Your task to perform on an android device: Search for vegetarian restaurants on Maps Image 0: 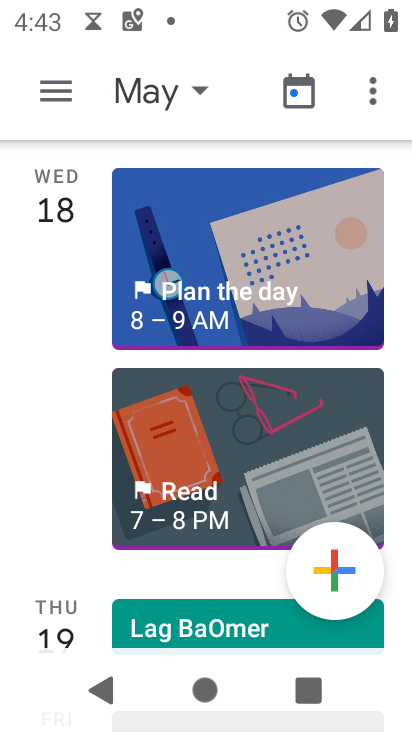
Step 0: press home button
Your task to perform on an android device: Search for vegetarian restaurants on Maps Image 1: 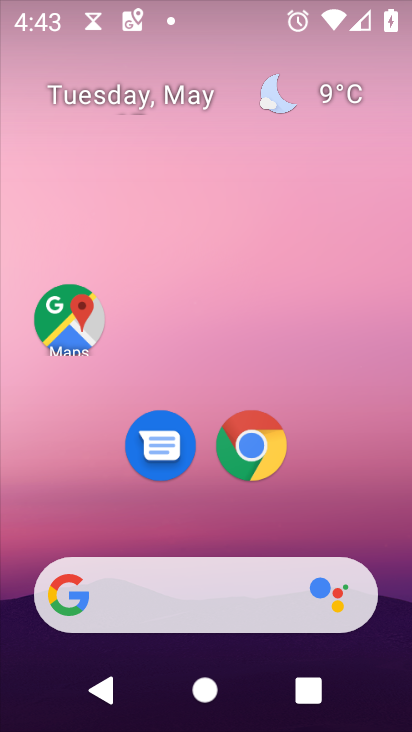
Step 1: drag from (312, 587) to (372, 170)
Your task to perform on an android device: Search for vegetarian restaurants on Maps Image 2: 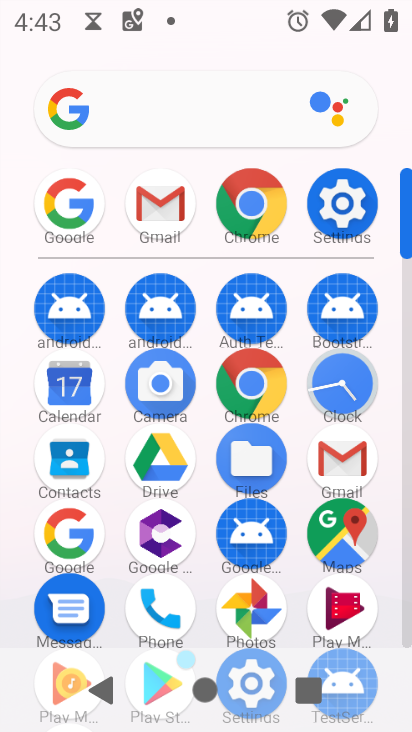
Step 2: click (338, 523)
Your task to perform on an android device: Search for vegetarian restaurants on Maps Image 3: 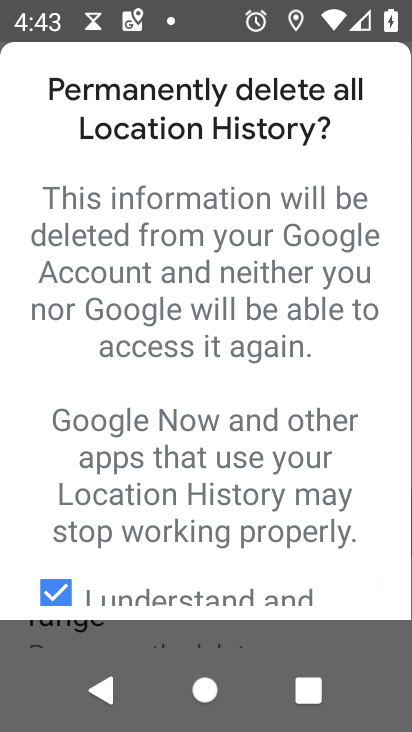
Step 3: press back button
Your task to perform on an android device: Search for vegetarian restaurants on Maps Image 4: 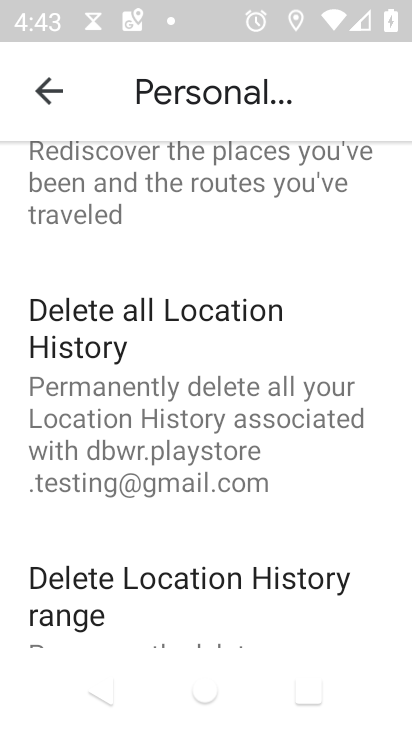
Step 4: press back button
Your task to perform on an android device: Search for vegetarian restaurants on Maps Image 5: 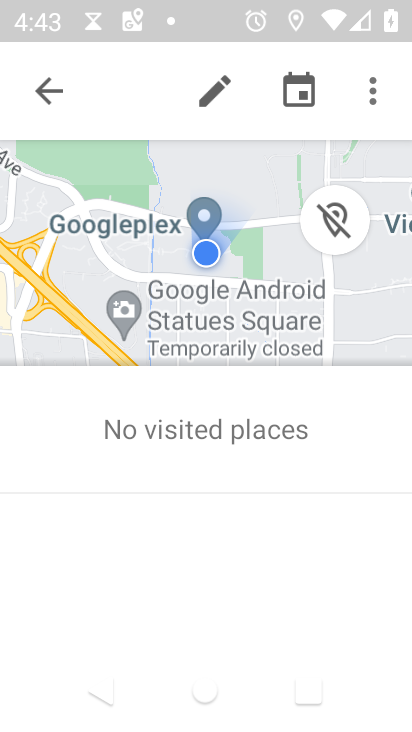
Step 5: press back button
Your task to perform on an android device: Search for vegetarian restaurants on Maps Image 6: 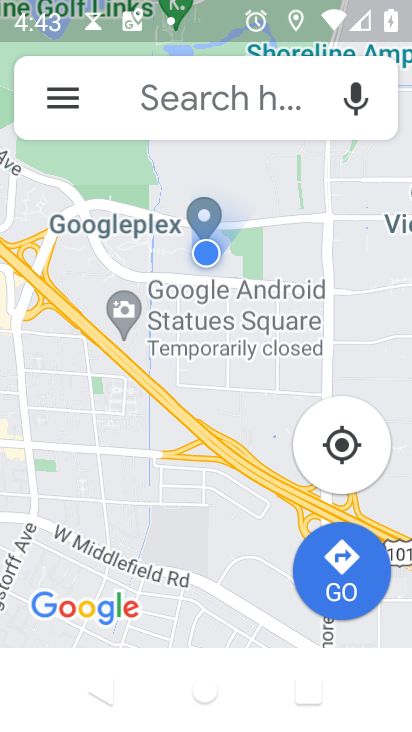
Step 6: click (55, 101)
Your task to perform on an android device: Search for vegetarian restaurants on Maps Image 7: 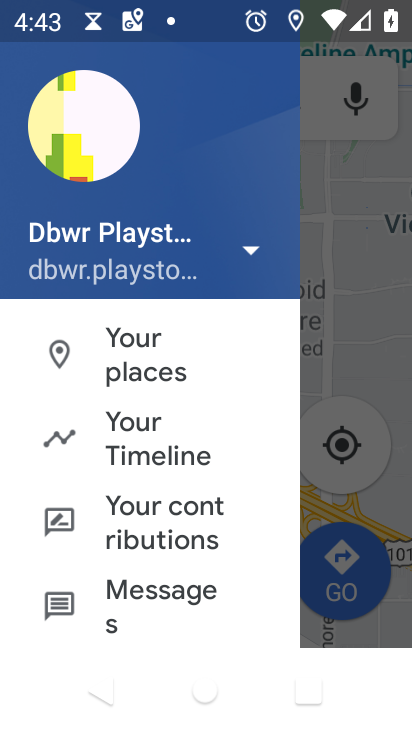
Step 7: click (399, 349)
Your task to perform on an android device: Search for vegetarian restaurants on Maps Image 8: 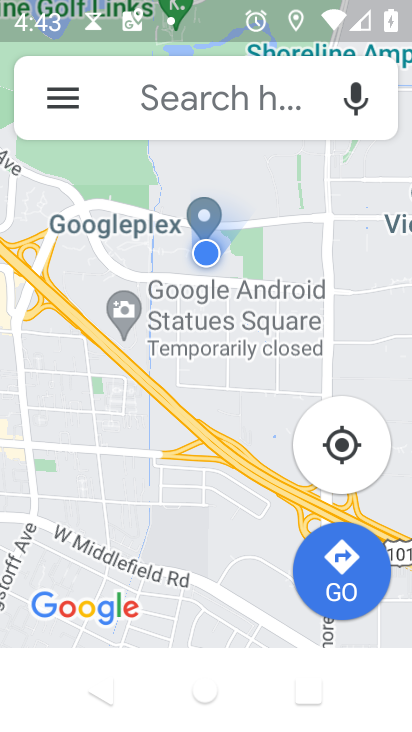
Step 8: click (292, 99)
Your task to perform on an android device: Search for vegetarian restaurants on Maps Image 9: 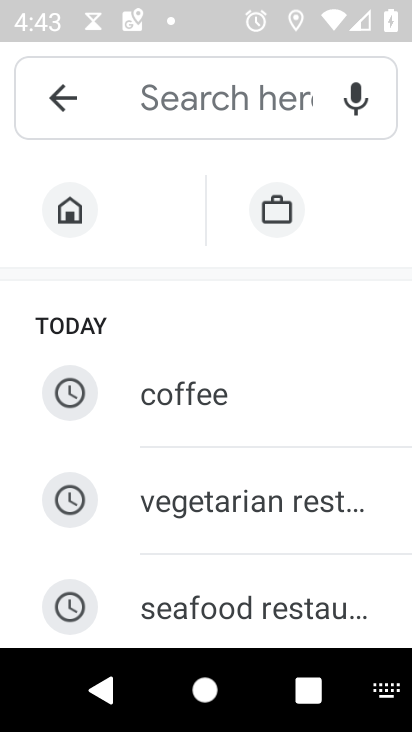
Step 9: click (276, 532)
Your task to perform on an android device: Search for vegetarian restaurants on Maps Image 10: 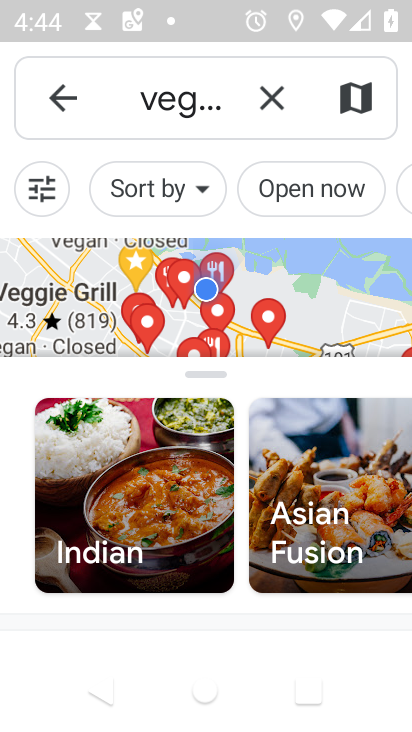
Step 10: task complete